Your task to perform on an android device: open device folders in google photos Image 0: 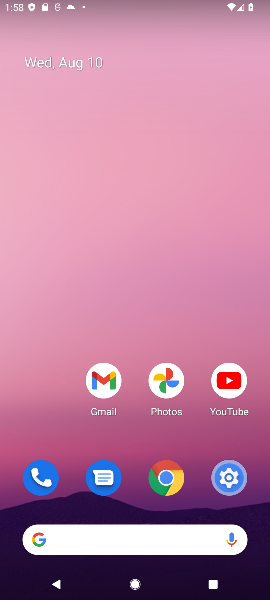
Step 0: click (163, 372)
Your task to perform on an android device: open device folders in google photos Image 1: 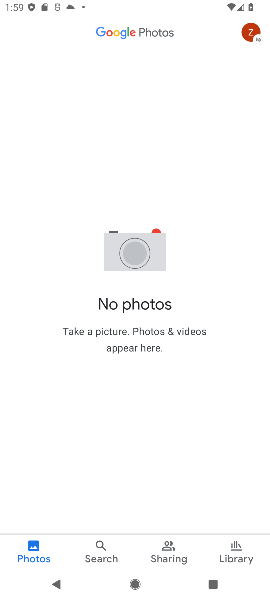
Step 1: task complete